Your task to perform on an android device: Open the calendar app, open the side menu, and click the "Day" option Image 0: 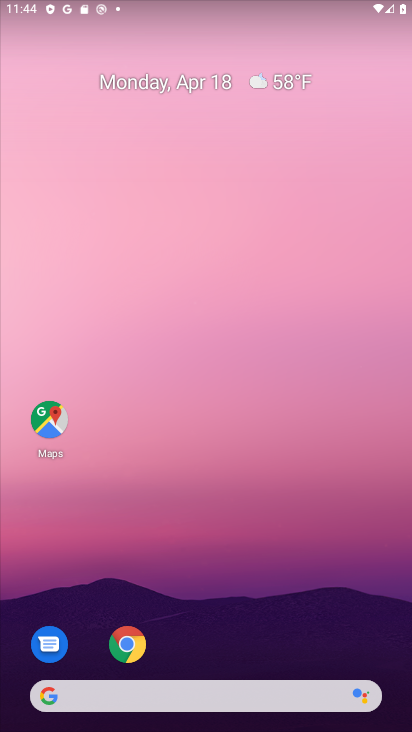
Step 0: click (141, 646)
Your task to perform on an android device: Open the calendar app, open the side menu, and click the "Day" option Image 1: 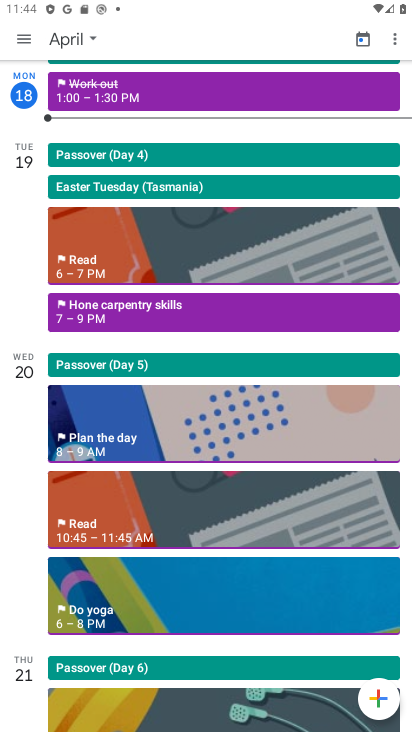
Step 1: press home button
Your task to perform on an android device: Open the calendar app, open the side menu, and click the "Day" option Image 2: 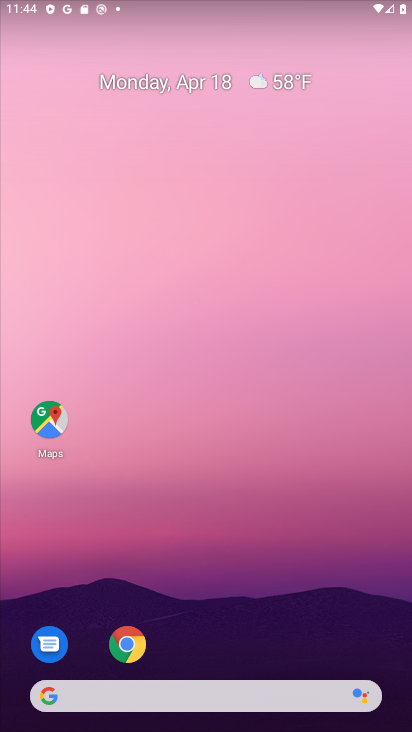
Step 2: drag from (262, 612) to (307, 137)
Your task to perform on an android device: Open the calendar app, open the side menu, and click the "Day" option Image 3: 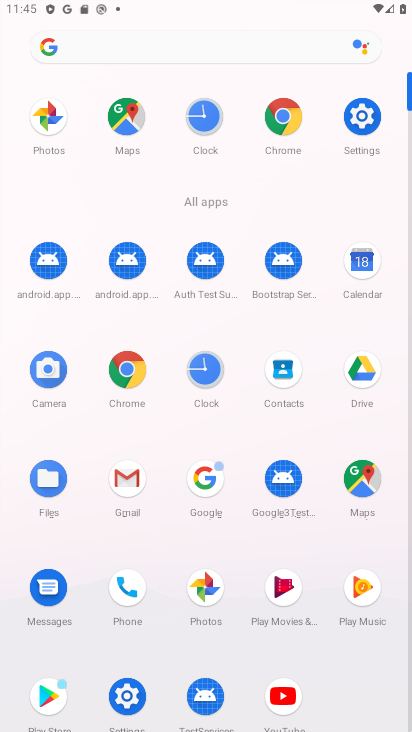
Step 3: click (368, 274)
Your task to perform on an android device: Open the calendar app, open the side menu, and click the "Day" option Image 4: 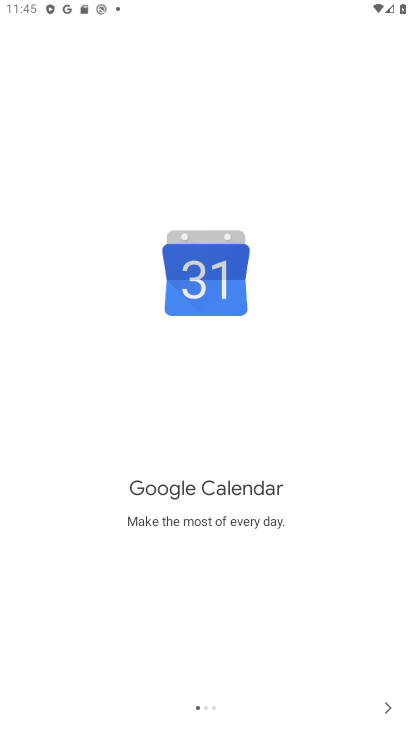
Step 4: click (247, 522)
Your task to perform on an android device: Open the calendar app, open the side menu, and click the "Day" option Image 5: 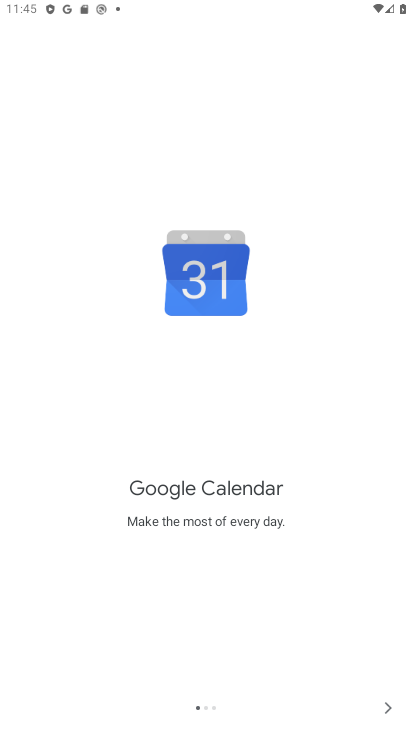
Step 5: click (385, 708)
Your task to perform on an android device: Open the calendar app, open the side menu, and click the "Day" option Image 6: 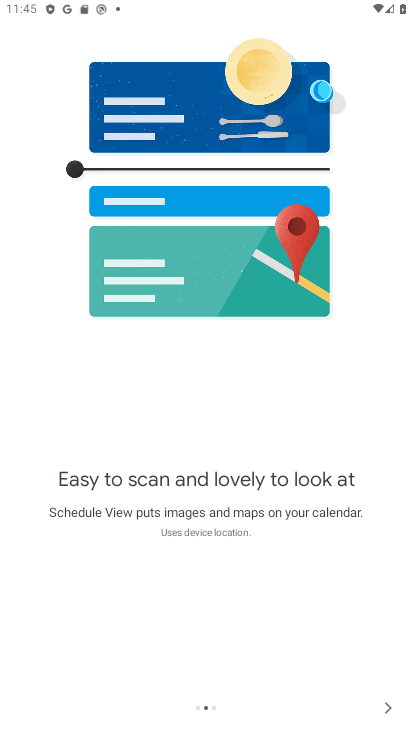
Step 6: click (385, 708)
Your task to perform on an android device: Open the calendar app, open the side menu, and click the "Day" option Image 7: 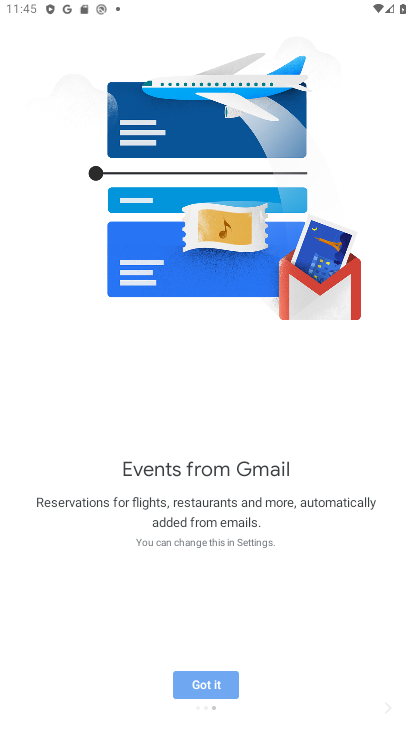
Step 7: click (385, 708)
Your task to perform on an android device: Open the calendar app, open the side menu, and click the "Day" option Image 8: 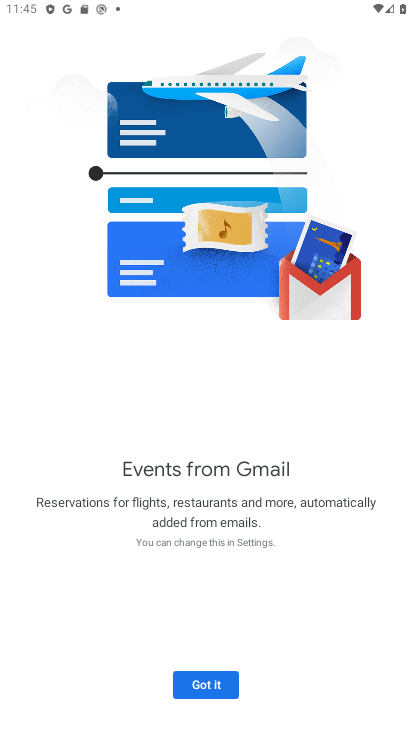
Step 8: click (225, 687)
Your task to perform on an android device: Open the calendar app, open the side menu, and click the "Day" option Image 9: 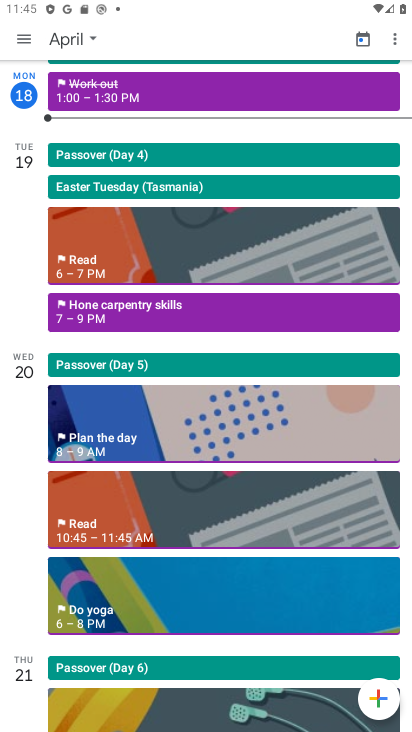
Step 9: click (21, 42)
Your task to perform on an android device: Open the calendar app, open the side menu, and click the "Day" option Image 10: 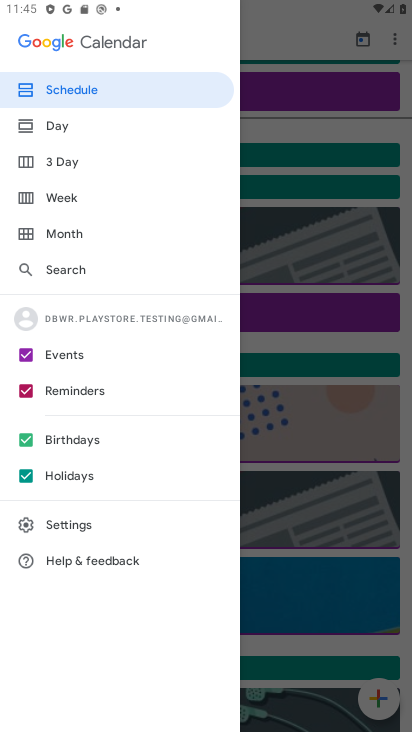
Step 10: click (54, 128)
Your task to perform on an android device: Open the calendar app, open the side menu, and click the "Day" option Image 11: 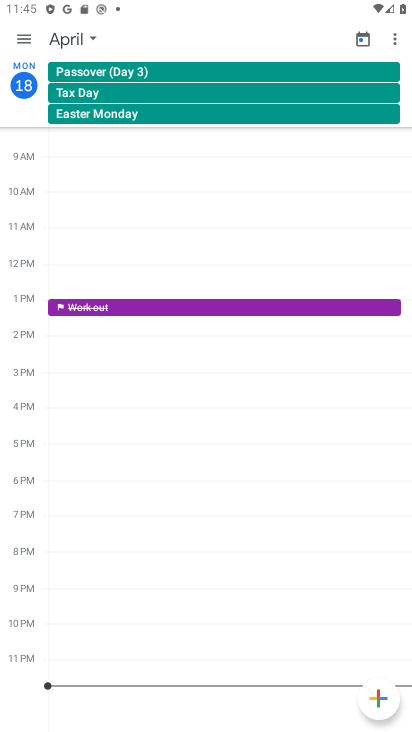
Step 11: task complete